Your task to perform on an android device: Go to Amazon Image 0: 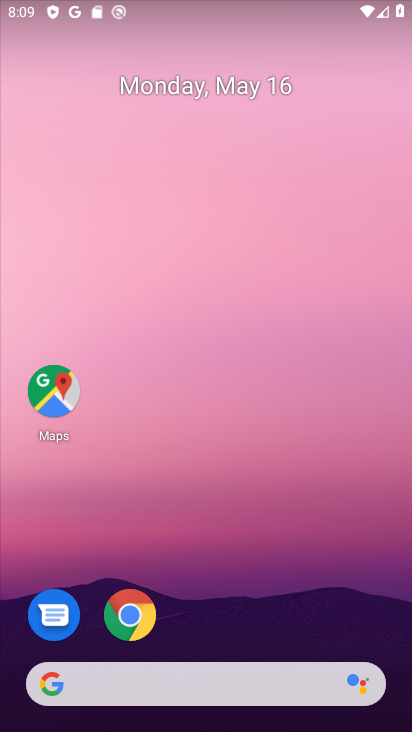
Step 0: click (124, 606)
Your task to perform on an android device: Go to Amazon Image 1: 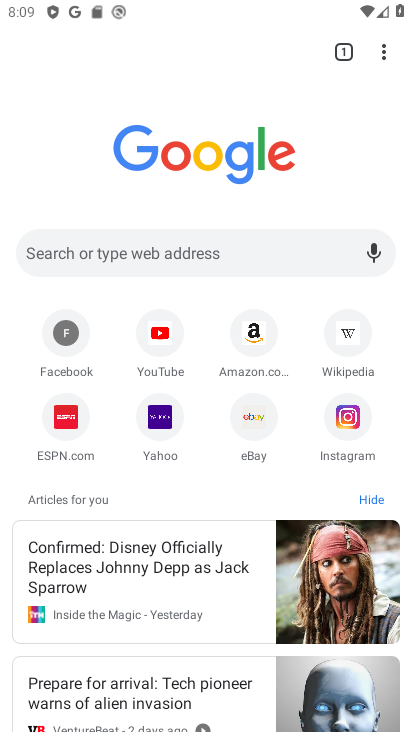
Step 1: click (259, 339)
Your task to perform on an android device: Go to Amazon Image 2: 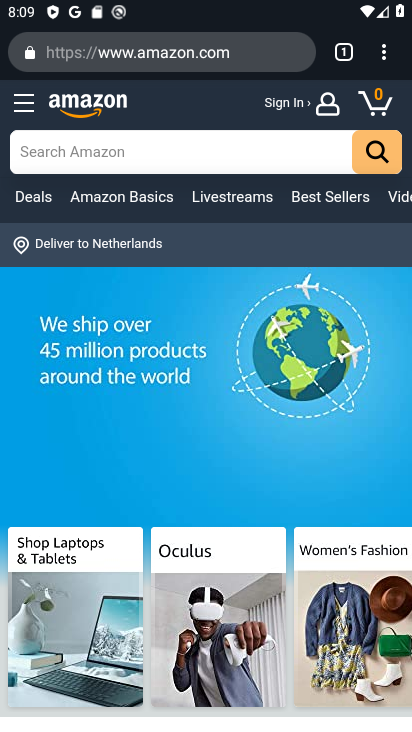
Step 2: task complete